Your task to perform on an android device: Open Google Chrome and open the bookmarks view Image 0: 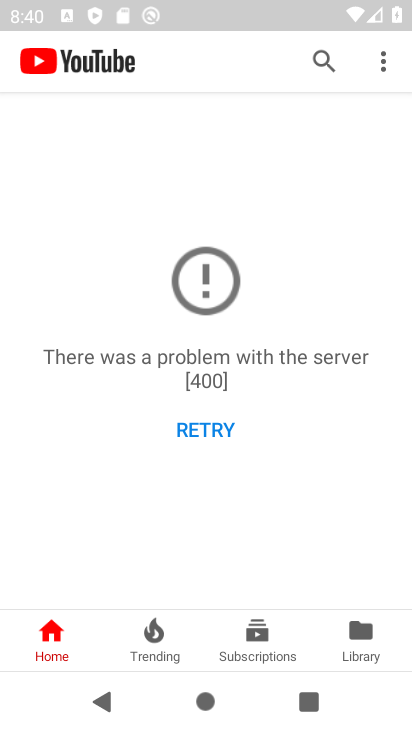
Step 0: press home button
Your task to perform on an android device: Open Google Chrome and open the bookmarks view Image 1: 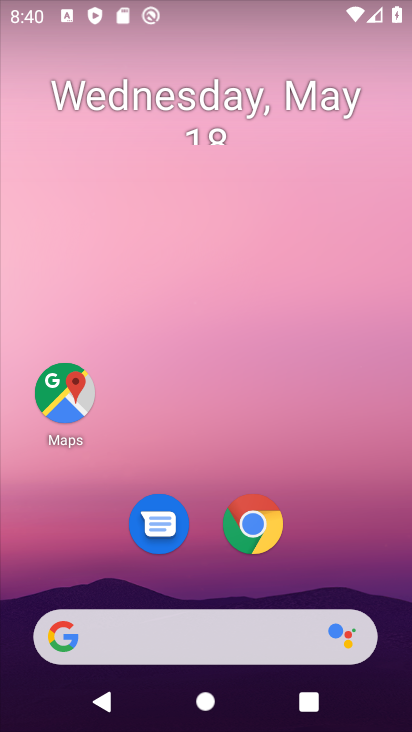
Step 1: click (258, 519)
Your task to perform on an android device: Open Google Chrome and open the bookmarks view Image 2: 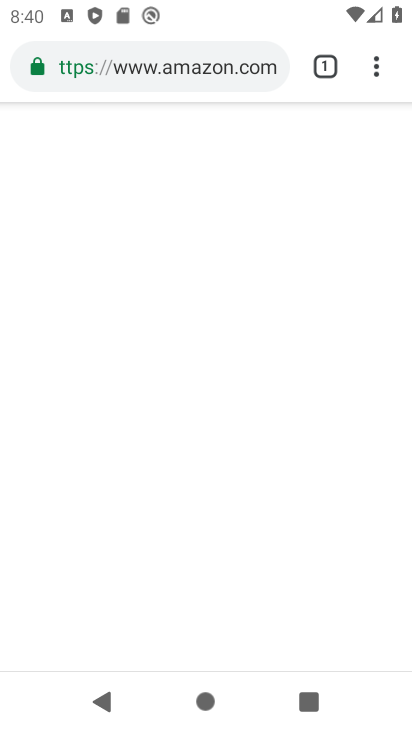
Step 2: click (377, 69)
Your task to perform on an android device: Open Google Chrome and open the bookmarks view Image 3: 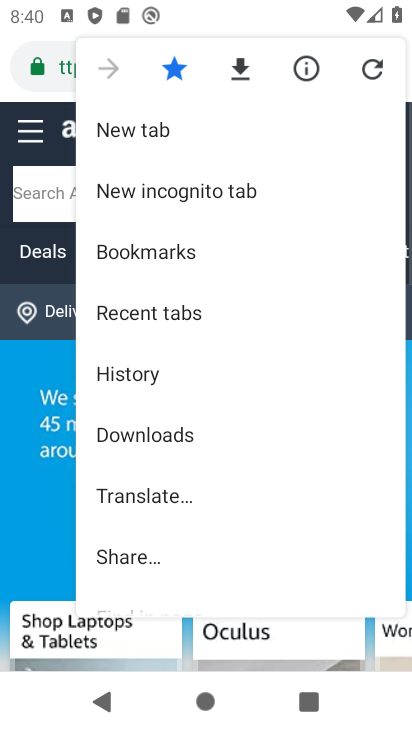
Step 3: click (210, 251)
Your task to perform on an android device: Open Google Chrome and open the bookmarks view Image 4: 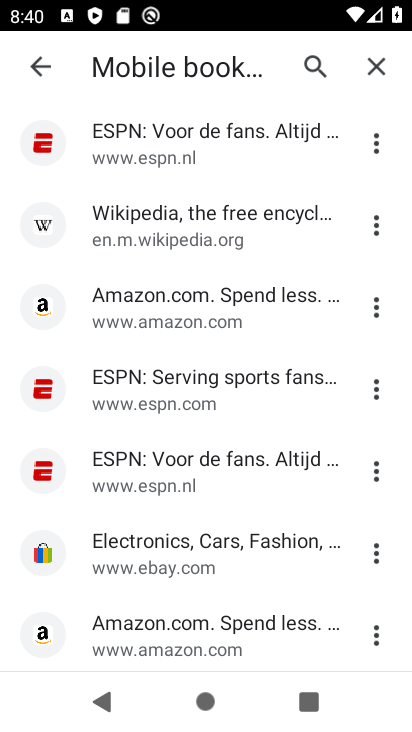
Step 4: task complete